Your task to perform on an android device: open device folders in google photos Image 0: 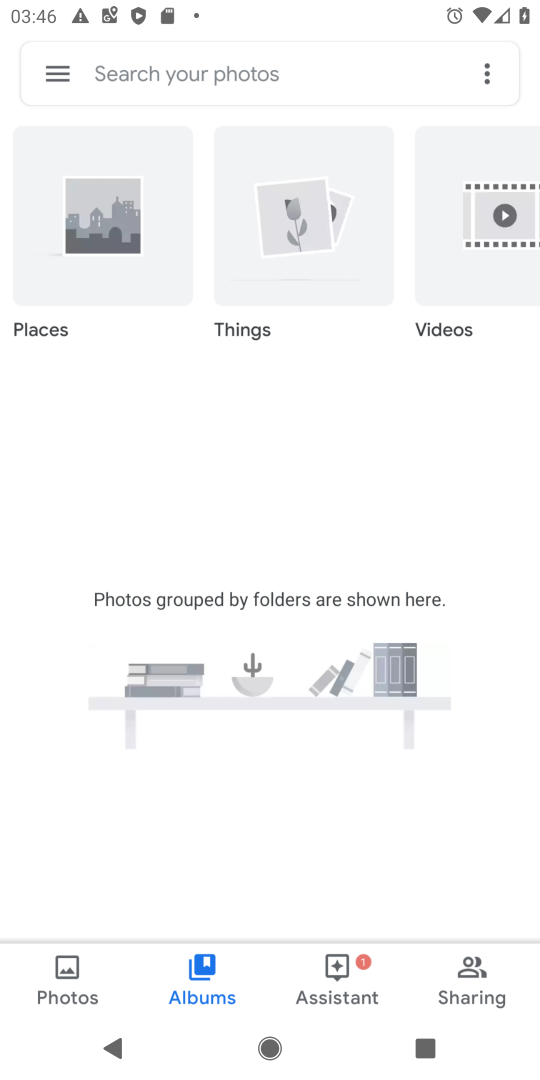
Step 0: press home button
Your task to perform on an android device: open device folders in google photos Image 1: 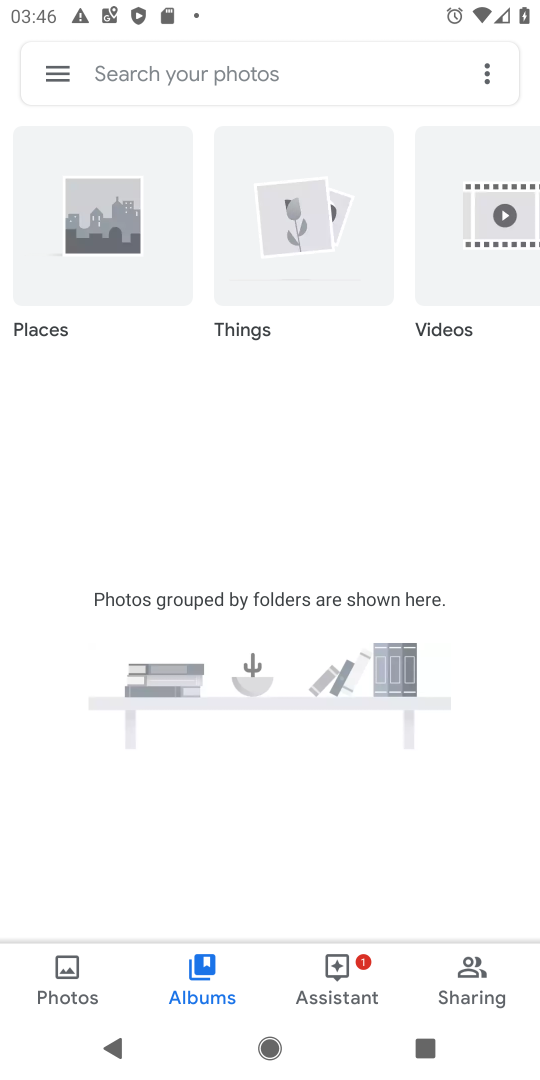
Step 1: press home button
Your task to perform on an android device: open device folders in google photos Image 2: 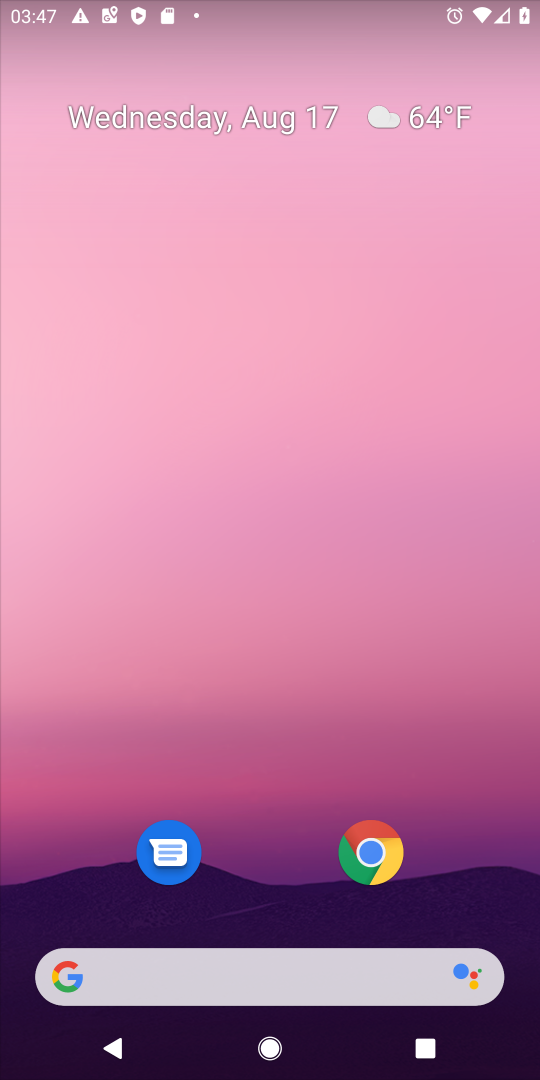
Step 2: drag from (238, 845) to (221, 203)
Your task to perform on an android device: open device folders in google photos Image 3: 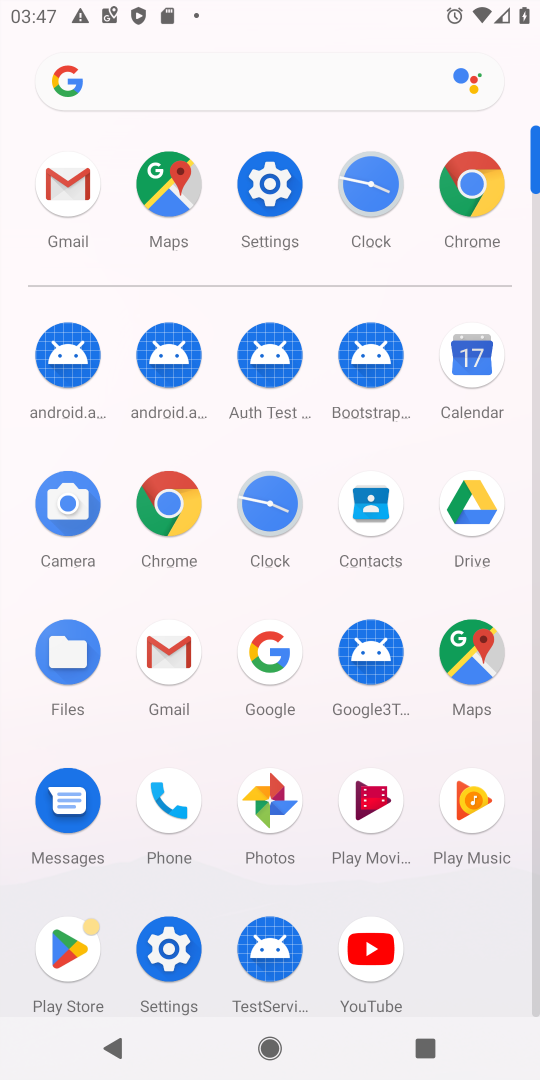
Step 3: click (261, 798)
Your task to perform on an android device: open device folders in google photos Image 4: 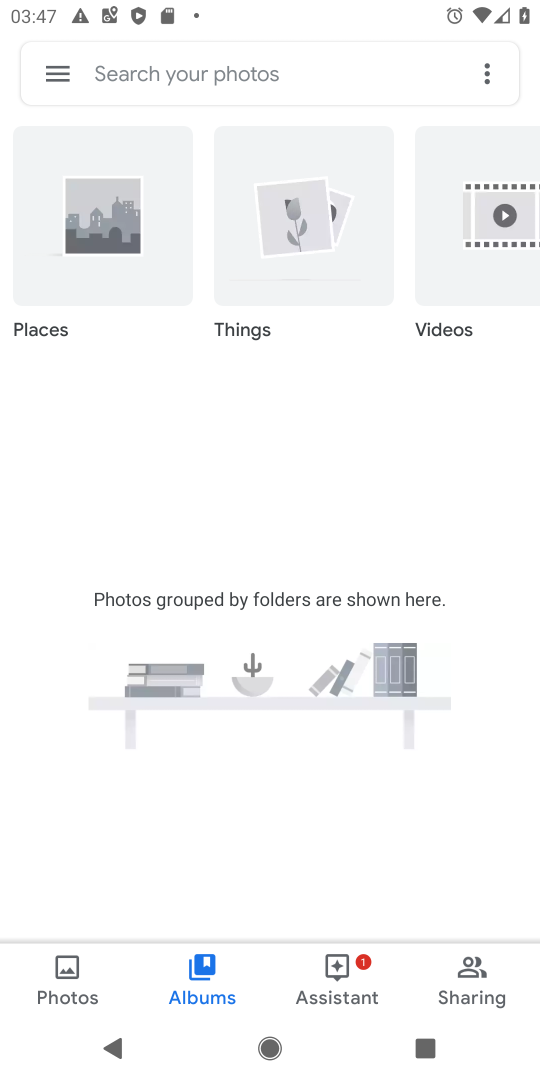
Step 4: click (480, 974)
Your task to perform on an android device: open device folders in google photos Image 5: 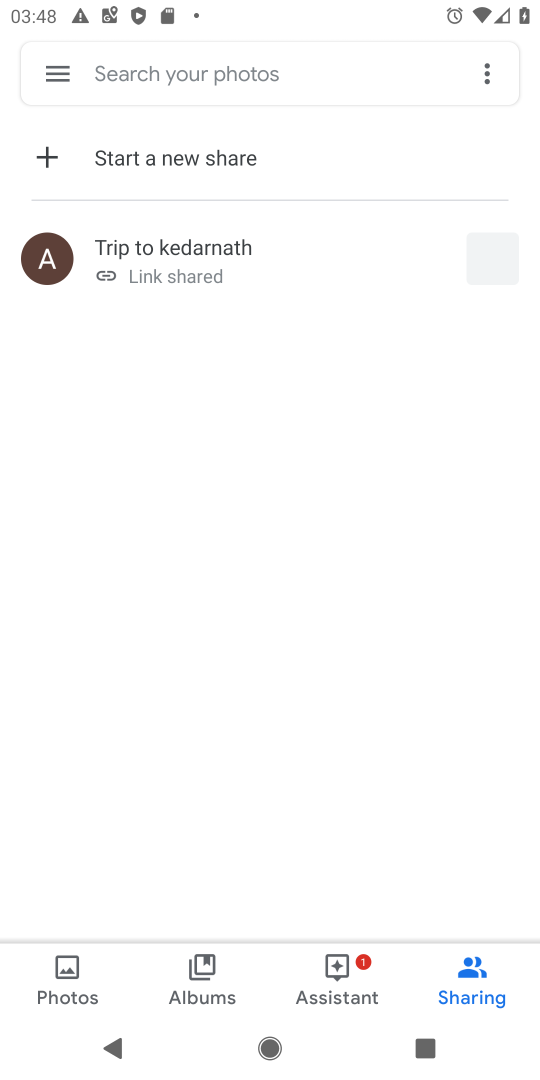
Step 5: click (333, 959)
Your task to perform on an android device: open device folders in google photos Image 6: 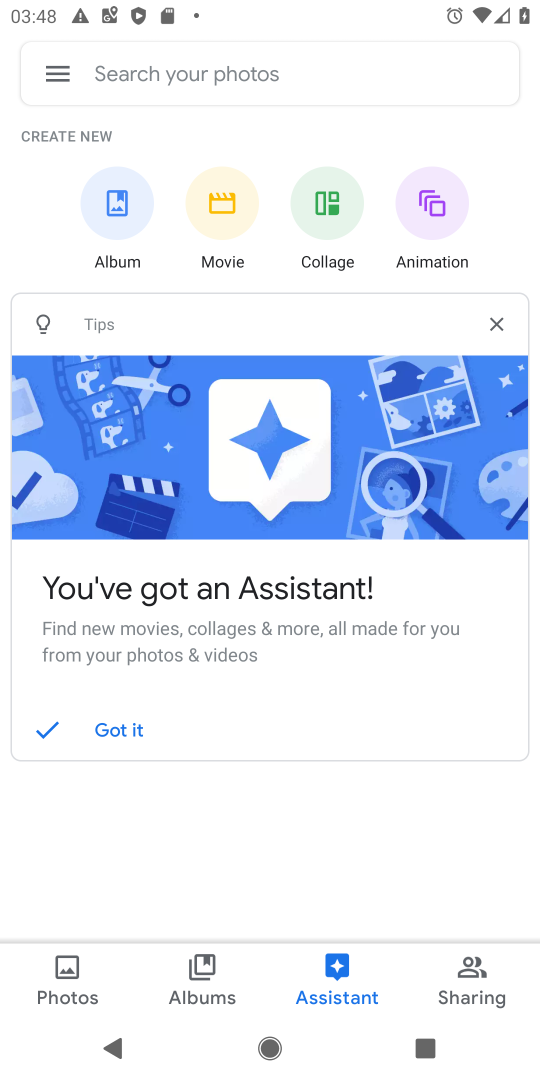
Step 6: click (70, 72)
Your task to perform on an android device: open device folders in google photos Image 7: 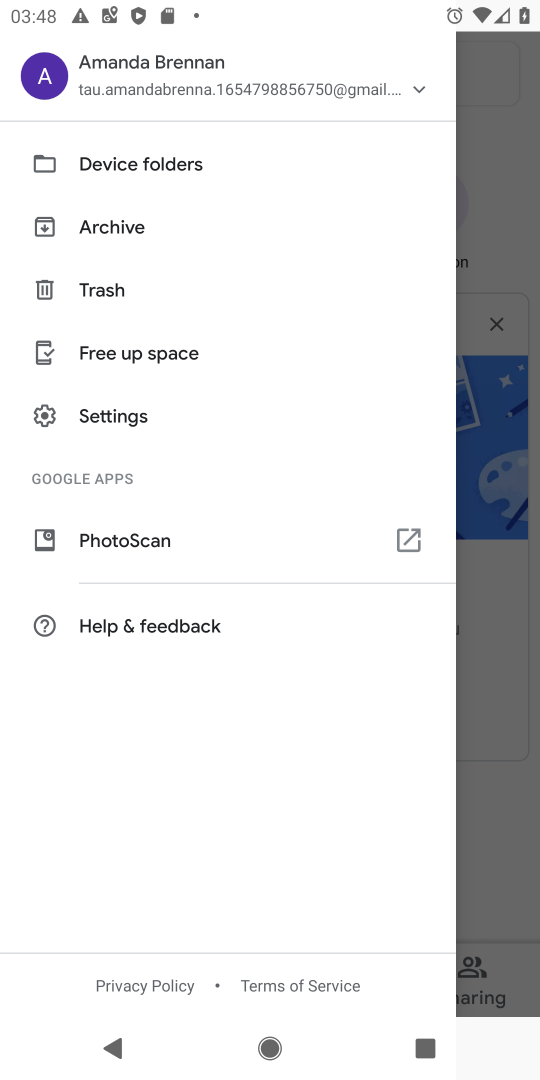
Step 7: click (150, 166)
Your task to perform on an android device: open device folders in google photos Image 8: 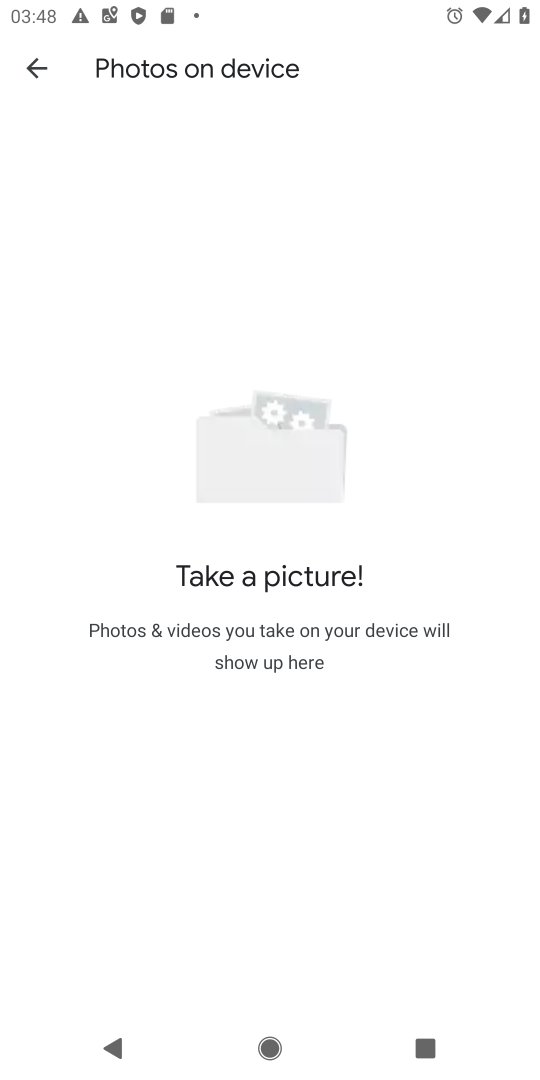
Step 8: task complete